Your task to perform on an android device: Turn off the flashlight Image 0: 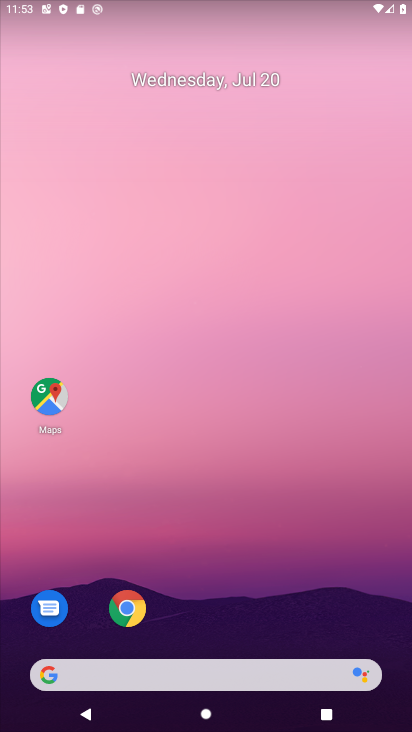
Step 0: drag from (383, 641) to (213, 170)
Your task to perform on an android device: Turn off the flashlight Image 1: 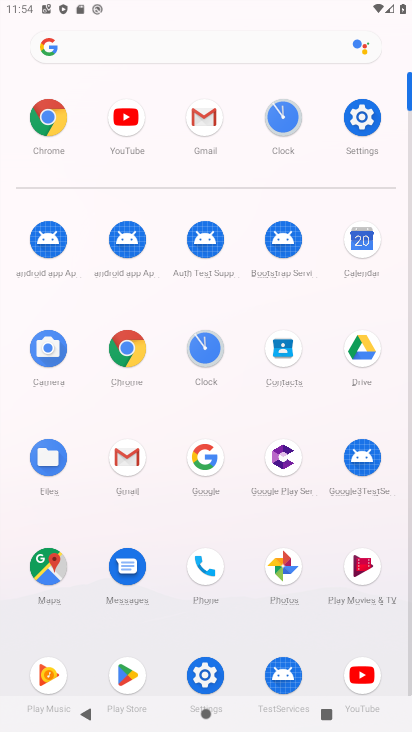
Step 1: click (209, 681)
Your task to perform on an android device: Turn off the flashlight Image 2: 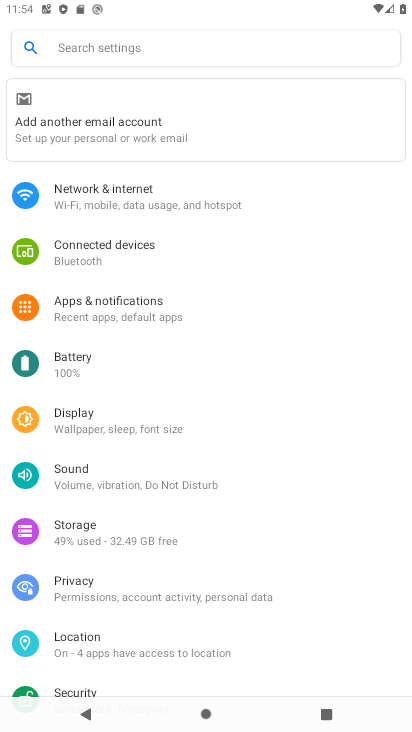
Step 2: task complete